Your task to perform on an android device: change the clock display to show seconds Image 0: 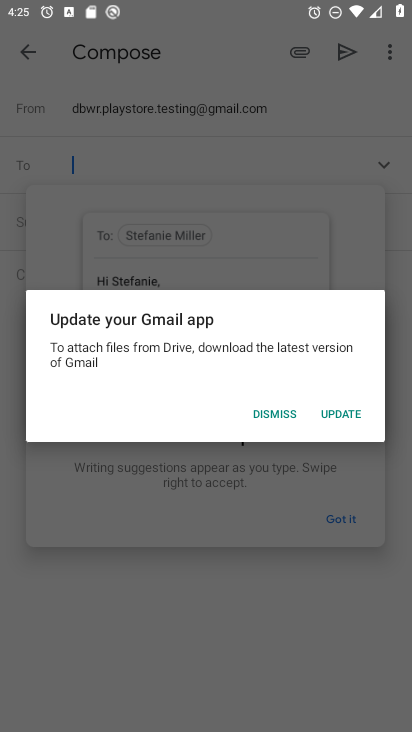
Step 0: press home button
Your task to perform on an android device: change the clock display to show seconds Image 1: 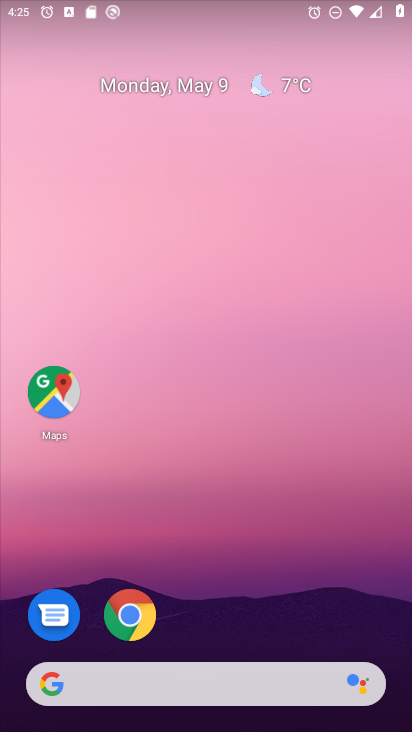
Step 1: drag from (382, 617) to (312, 115)
Your task to perform on an android device: change the clock display to show seconds Image 2: 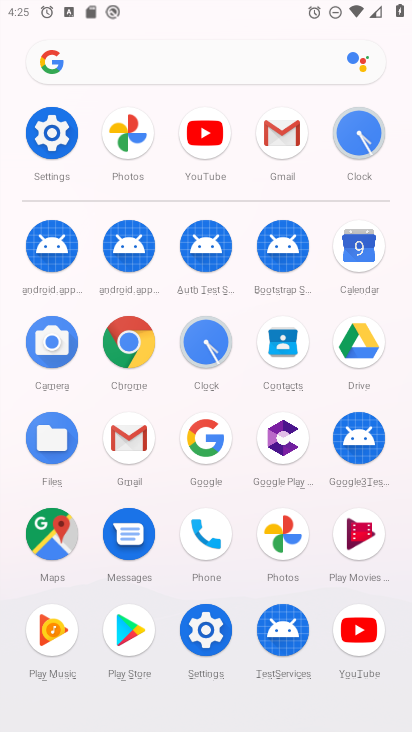
Step 2: click (204, 344)
Your task to perform on an android device: change the clock display to show seconds Image 3: 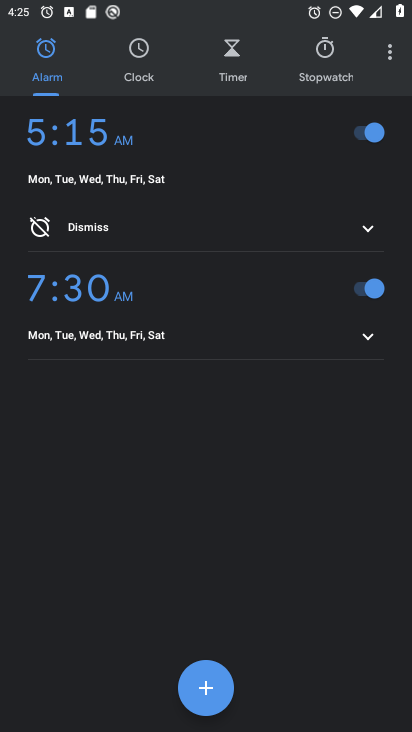
Step 3: click (385, 56)
Your task to perform on an android device: change the clock display to show seconds Image 4: 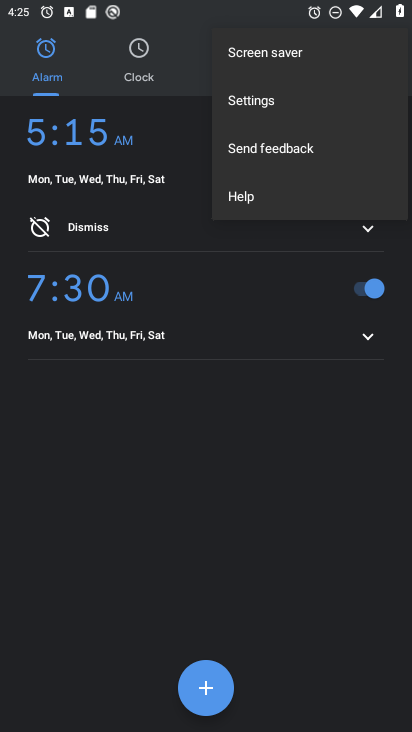
Step 4: click (246, 102)
Your task to perform on an android device: change the clock display to show seconds Image 5: 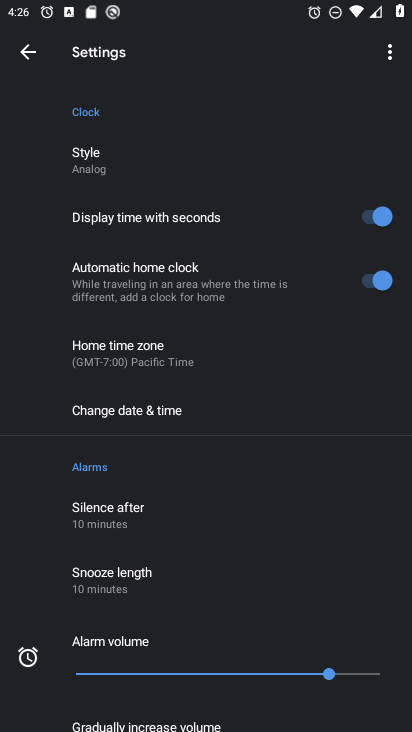
Step 5: task complete